Your task to perform on an android device: Toggle the flashlight Image 0: 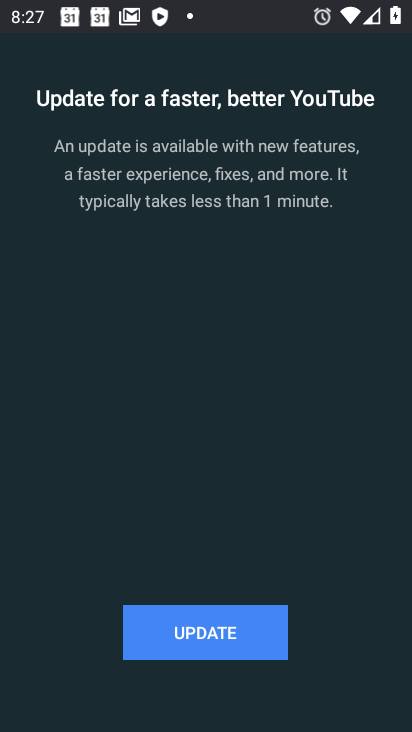
Step 0: press home button
Your task to perform on an android device: Toggle the flashlight Image 1: 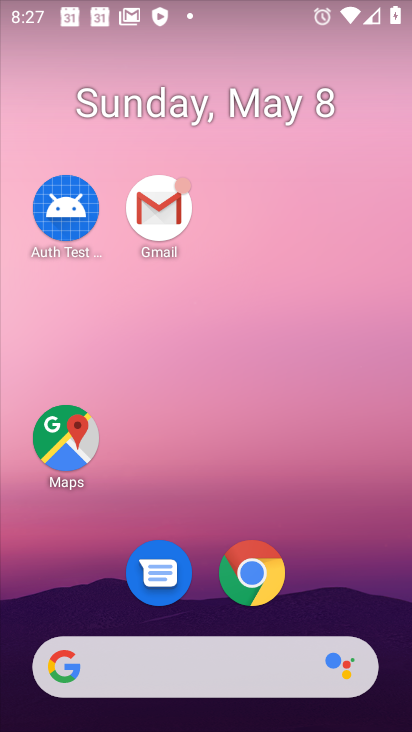
Step 1: task complete